Your task to perform on an android device: turn pop-ups off in chrome Image 0: 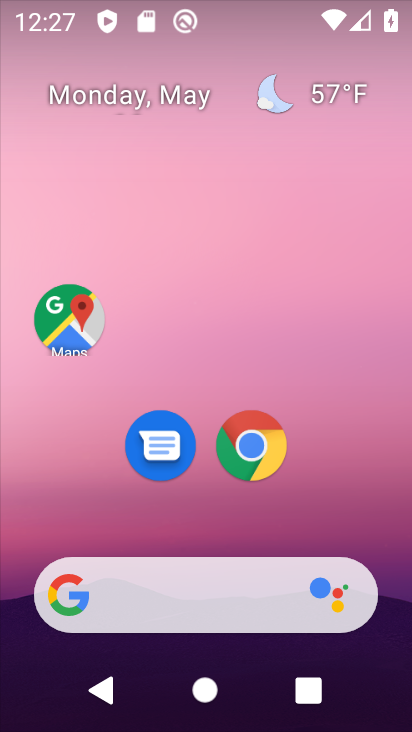
Step 0: drag from (385, 598) to (242, 32)
Your task to perform on an android device: turn pop-ups off in chrome Image 1: 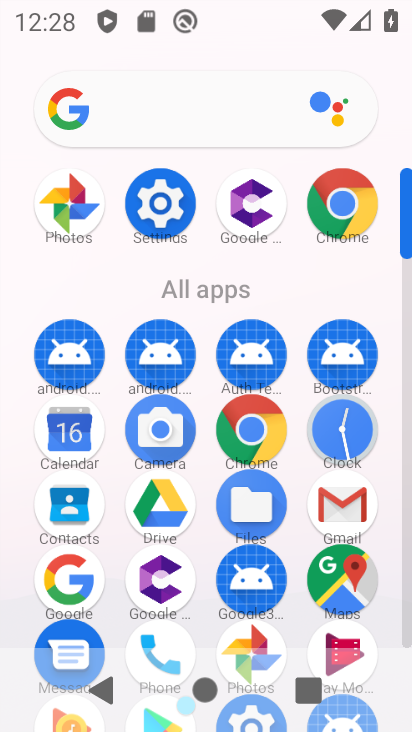
Step 1: click (328, 223)
Your task to perform on an android device: turn pop-ups off in chrome Image 2: 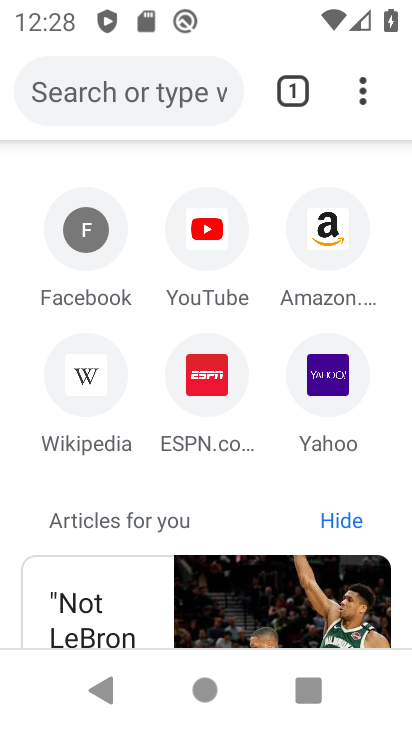
Step 2: click (361, 91)
Your task to perform on an android device: turn pop-ups off in chrome Image 3: 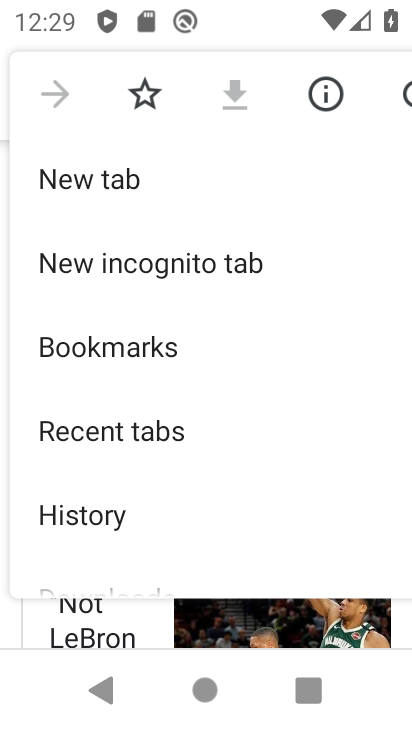
Step 3: drag from (120, 545) to (236, 87)
Your task to perform on an android device: turn pop-ups off in chrome Image 4: 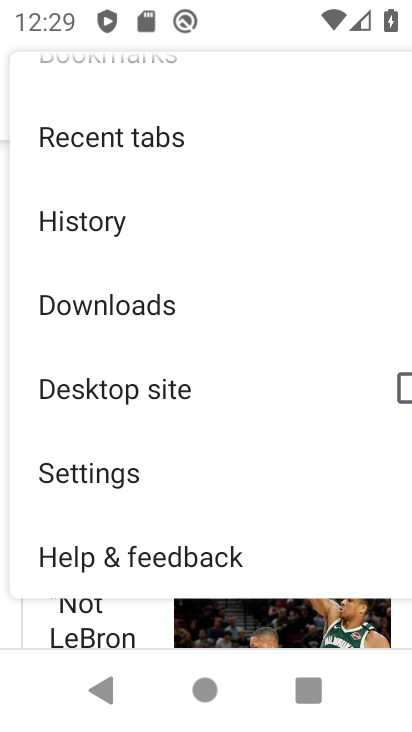
Step 4: drag from (171, 515) to (235, 86)
Your task to perform on an android device: turn pop-ups off in chrome Image 5: 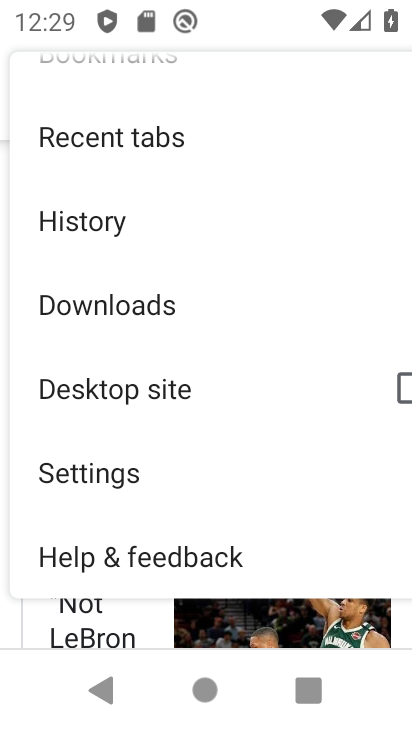
Step 5: click (92, 483)
Your task to perform on an android device: turn pop-ups off in chrome Image 6: 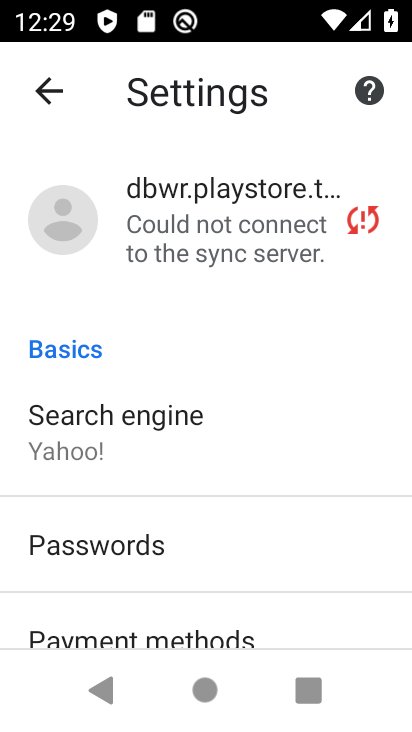
Step 6: drag from (208, 625) to (185, 83)
Your task to perform on an android device: turn pop-ups off in chrome Image 7: 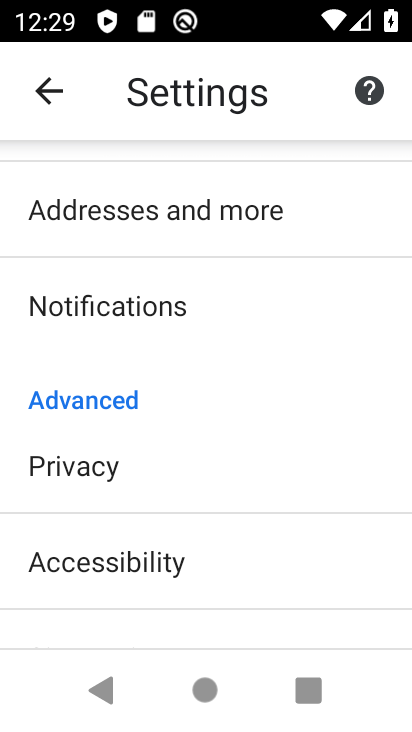
Step 7: drag from (131, 564) to (172, 138)
Your task to perform on an android device: turn pop-ups off in chrome Image 8: 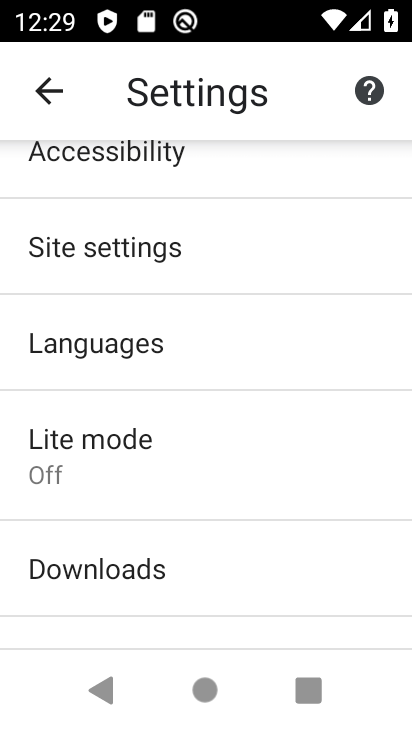
Step 8: click (131, 254)
Your task to perform on an android device: turn pop-ups off in chrome Image 9: 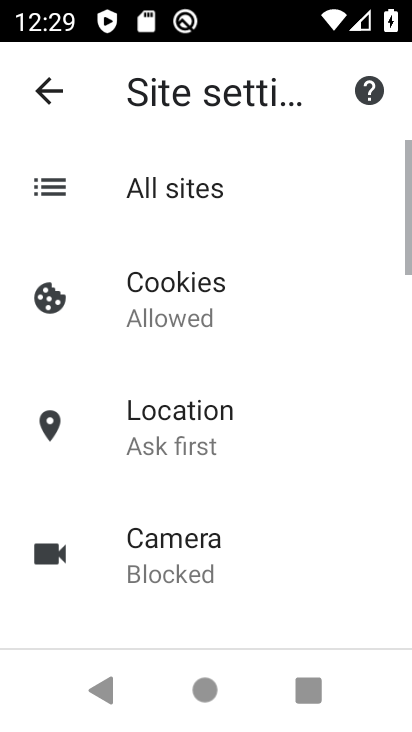
Step 9: drag from (141, 602) to (225, 161)
Your task to perform on an android device: turn pop-ups off in chrome Image 10: 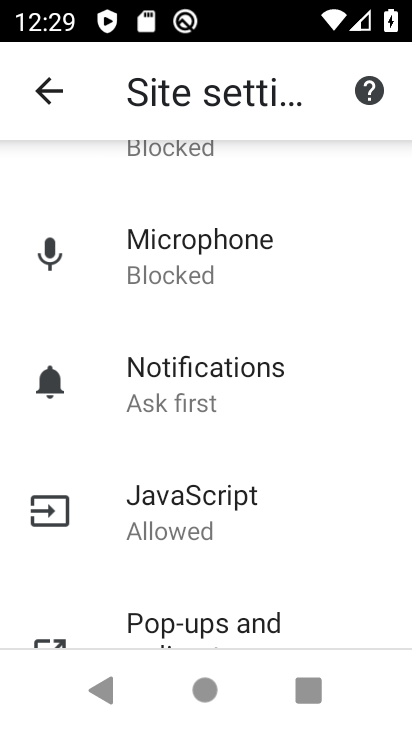
Step 10: click (179, 614)
Your task to perform on an android device: turn pop-ups off in chrome Image 11: 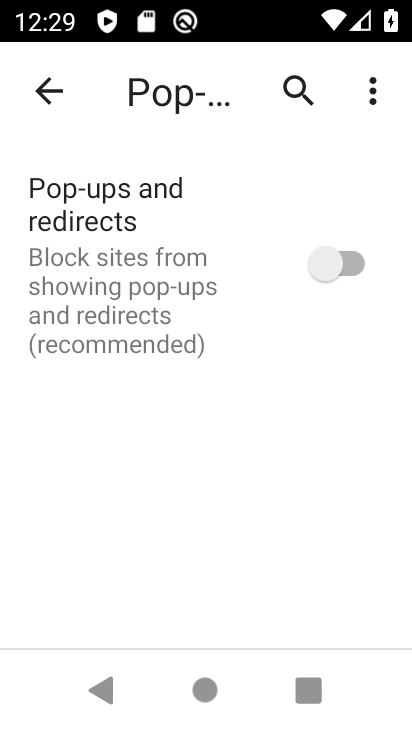
Step 11: task complete